Your task to perform on an android device: turn on improve location accuracy Image 0: 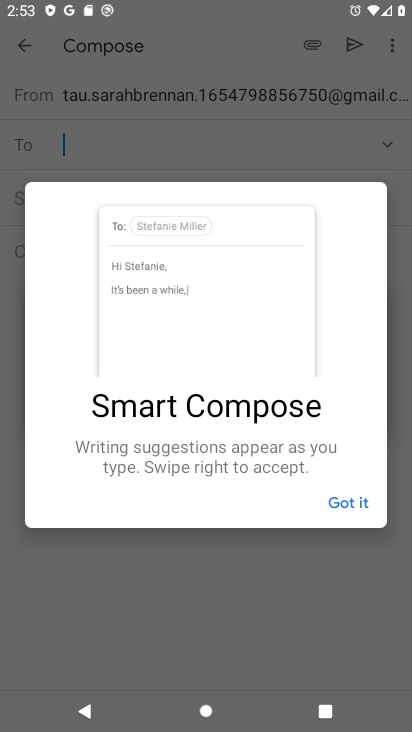
Step 0: drag from (217, 630) to (226, 5)
Your task to perform on an android device: turn on improve location accuracy Image 1: 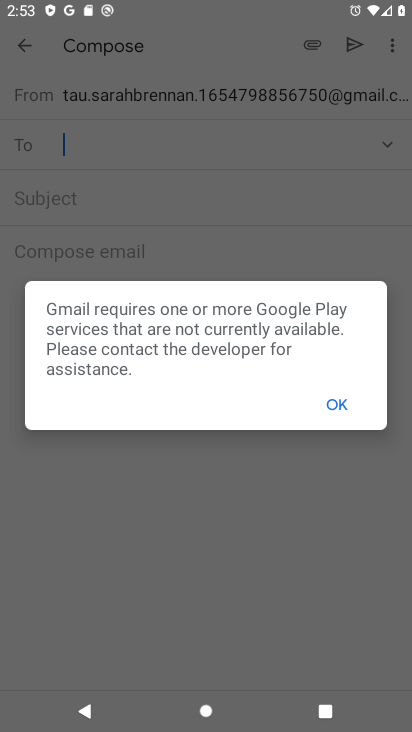
Step 1: press home button
Your task to perform on an android device: turn on improve location accuracy Image 2: 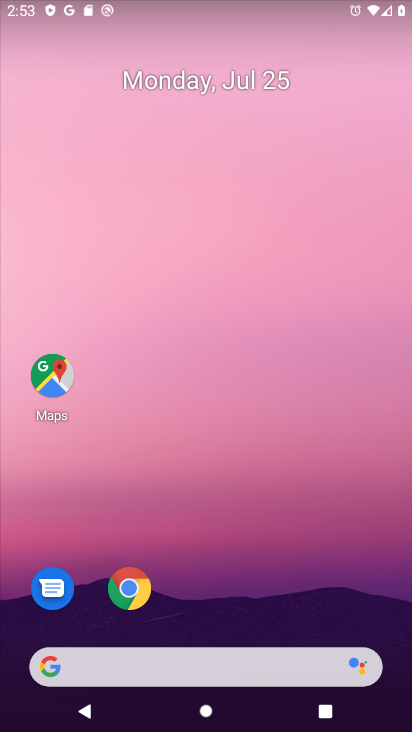
Step 2: drag from (221, 625) to (259, 16)
Your task to perform on an android device: turn on improve location accuracy Image 3: 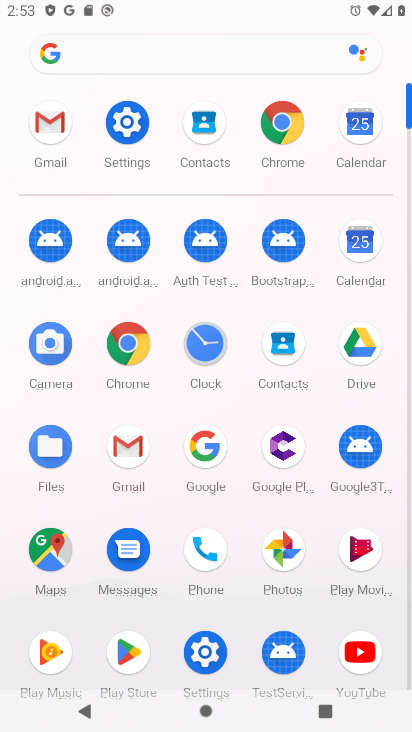
Step 3: click (205, 644)
Your task to perform on an android device: turn on improve location accuracy Image 4: 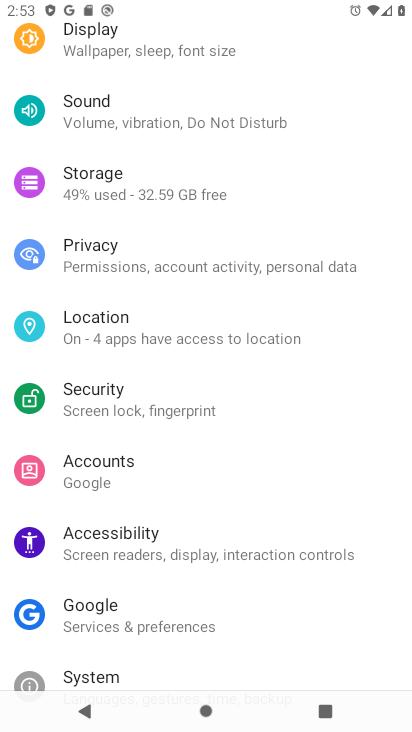
Step 4: click (156, 317)
Your task to perform on an android device: turn on improve location accuracy Image 5: 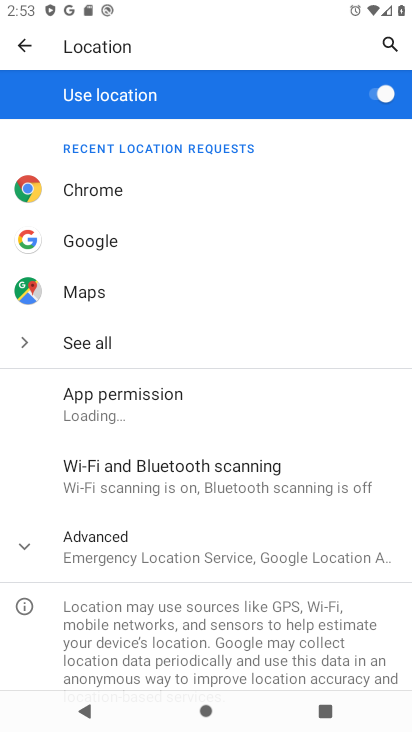
Step 5: click (23, 540)
Your task to perform on an android device: turn on improve location accuracy Image 6: 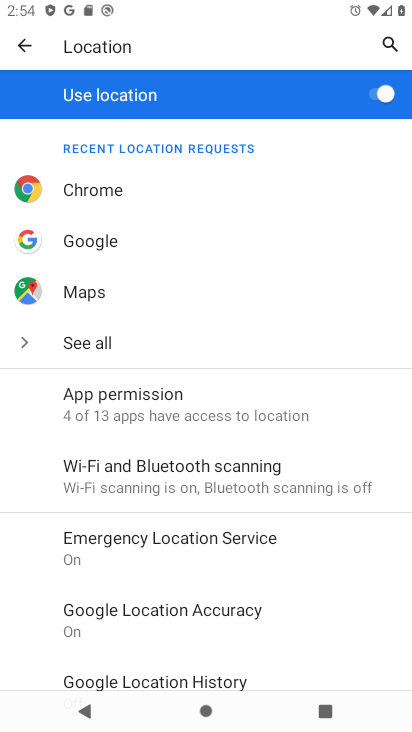
Step 6: click (116, 617)
Your task to perform on an android device: turn on improve location accuracy Image 7: 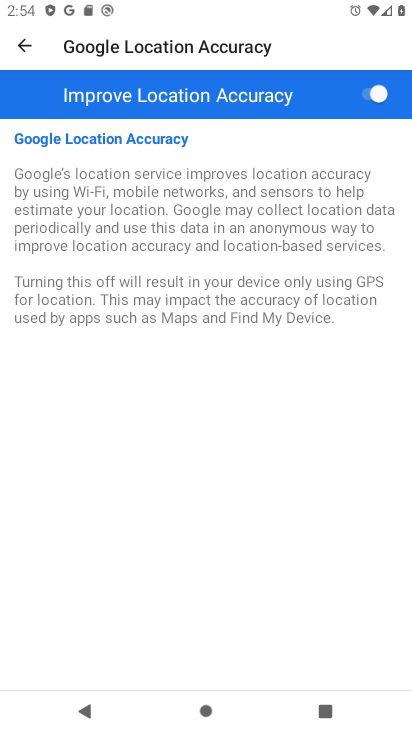
Step 7: task complete